Your task to perform on an android device: turn off priority inbox in the gmail app Image 0: 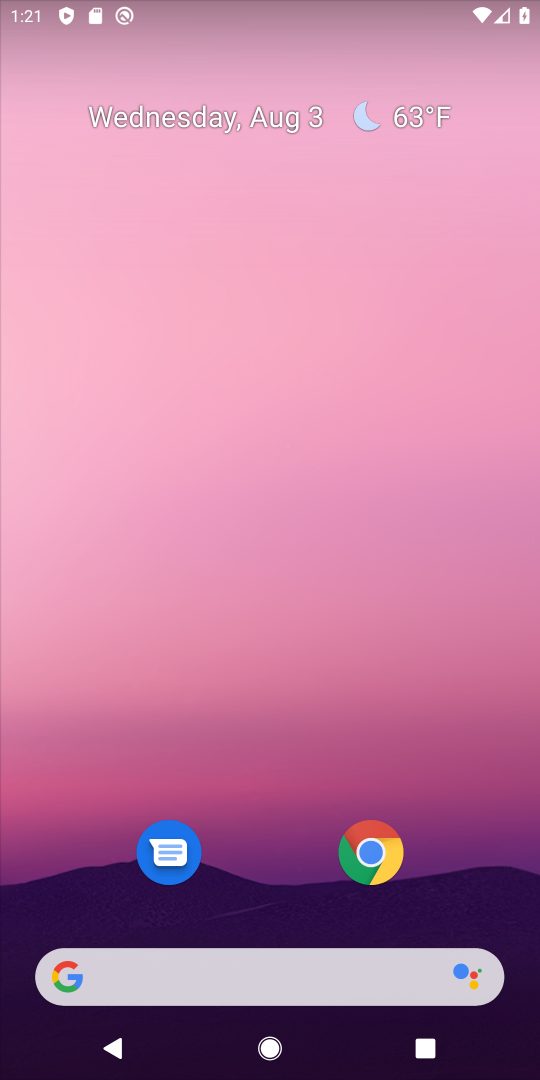
Step 0: drag from (319, 878) to (454, 327)
Your task to perform on an android device: turn off priority inbox in the gmail app Image 1: 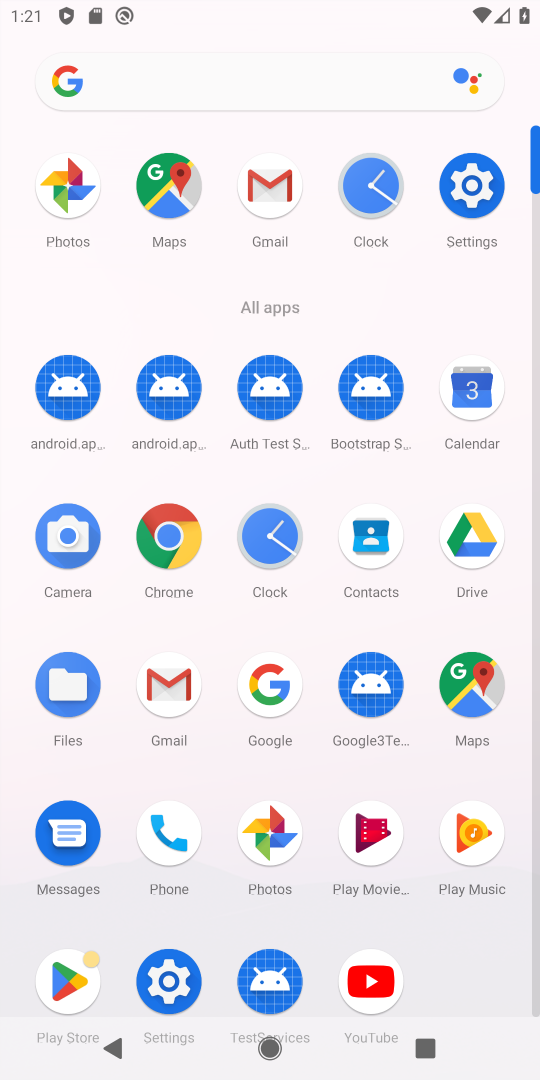
Step 1: click (265, 189)
Your task to perform on an android device: turn off priority inbox in the gmail app Image 2: 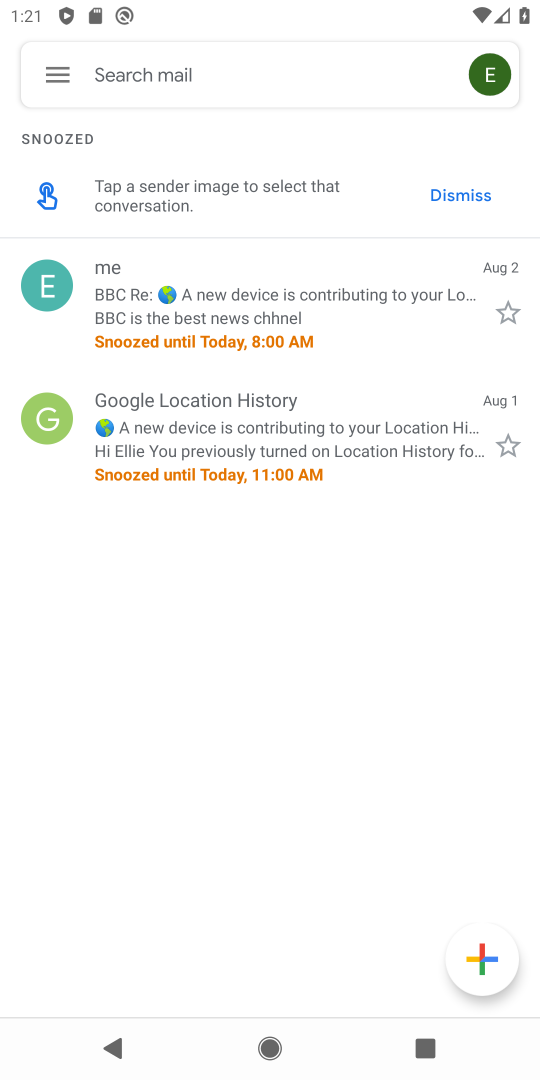
Step 2: click (46, 65)
Your task to perform on an android device: turn off priority inbox in the gmail app Image 3: 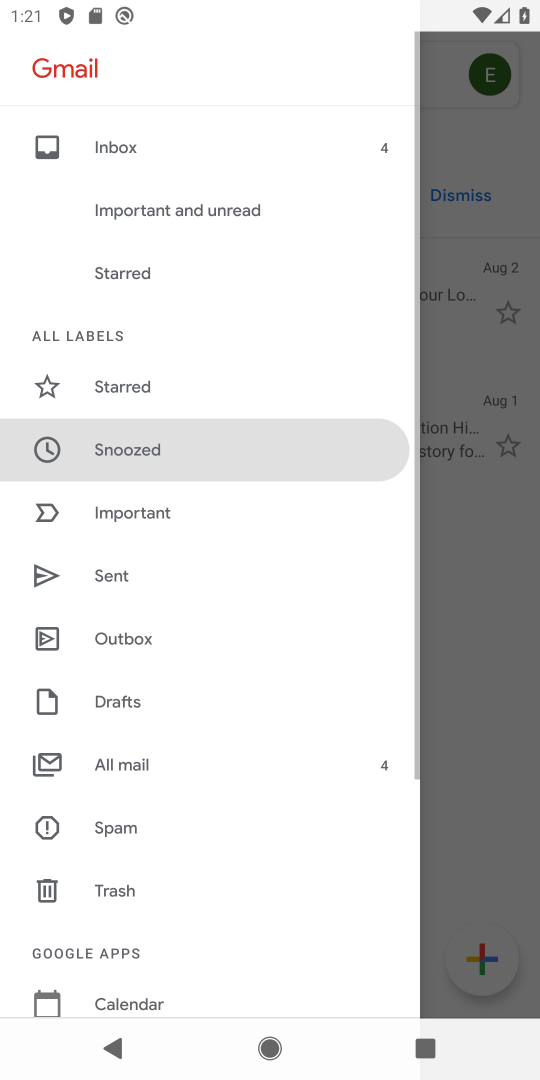
Step 3: drag from (217, 811) to (273, 55)
Your task to perform on an android device: turn off priority inbox in the gmail app Image 4: 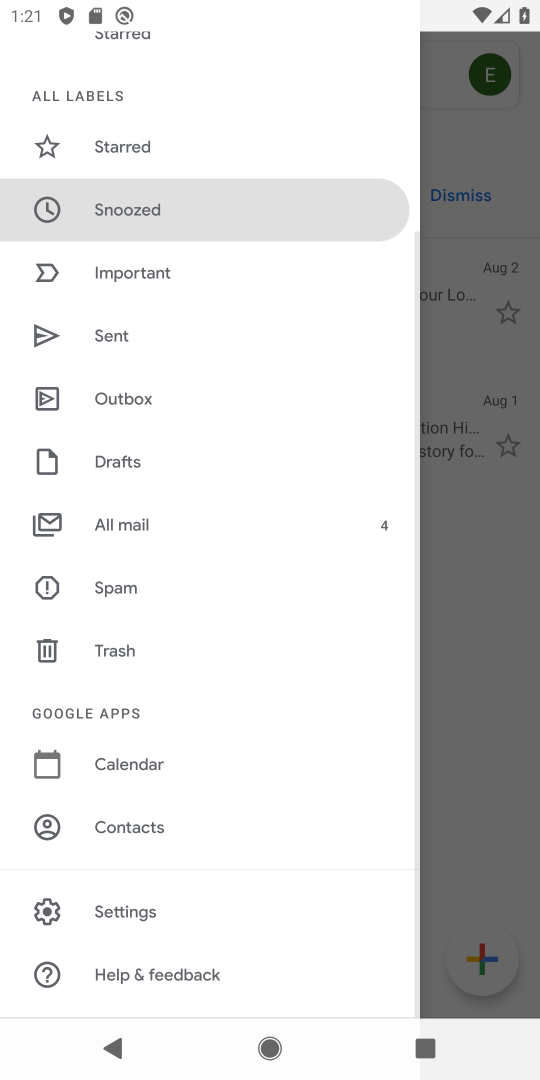
Step 4: drag from (238, 863) to (304, 95)
Your task to perform on an android device: turn off priority inbox in the gmail app Image 5: 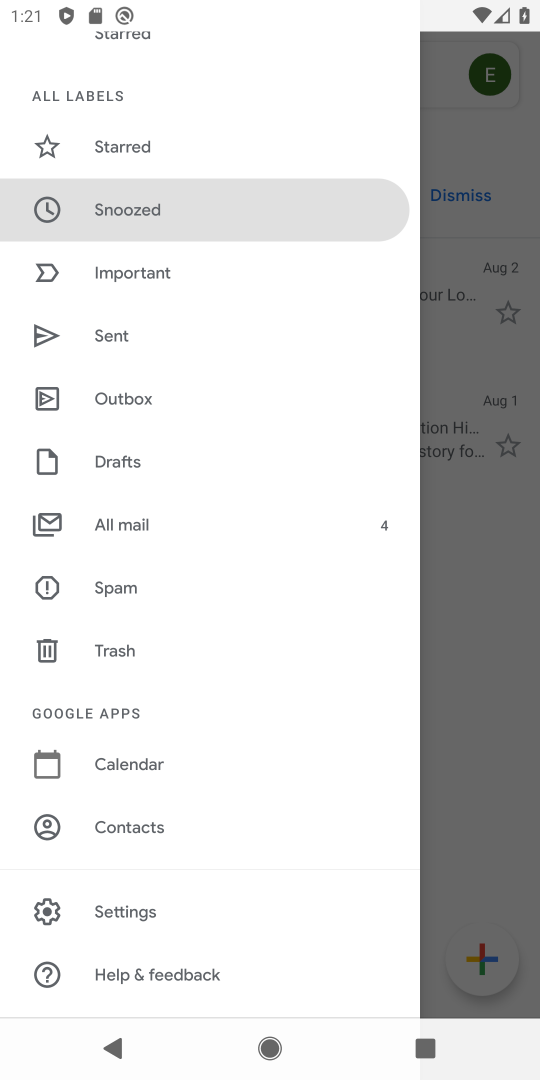
Step 5: click (128, 905)
Your task to perform on an android device: turn off priority inbox in the gmail app Image 6: 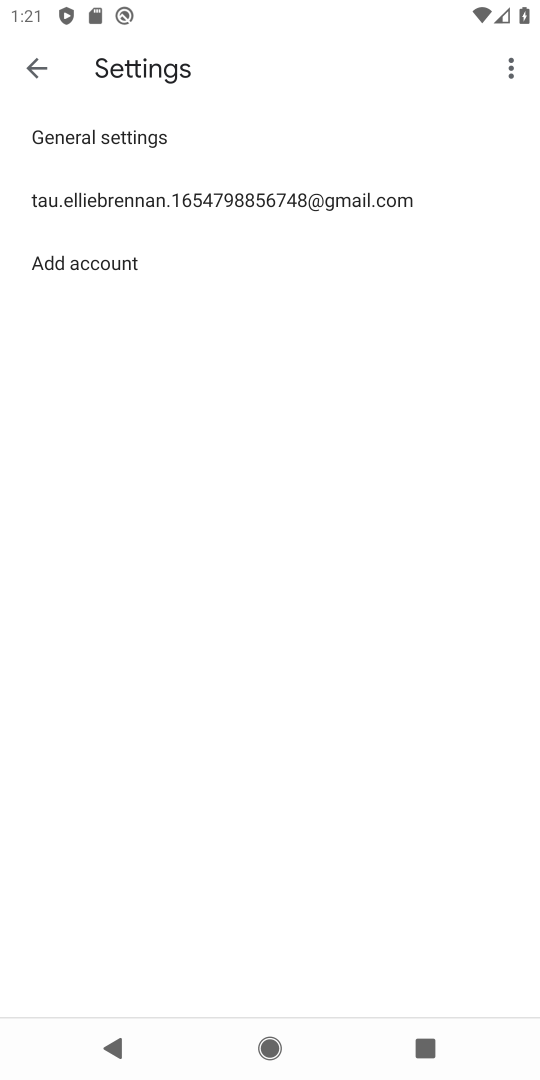
Step 6: click (237, 196)
Your task to perform on an android device: turn off priority inbox in the gmail app Image 7: 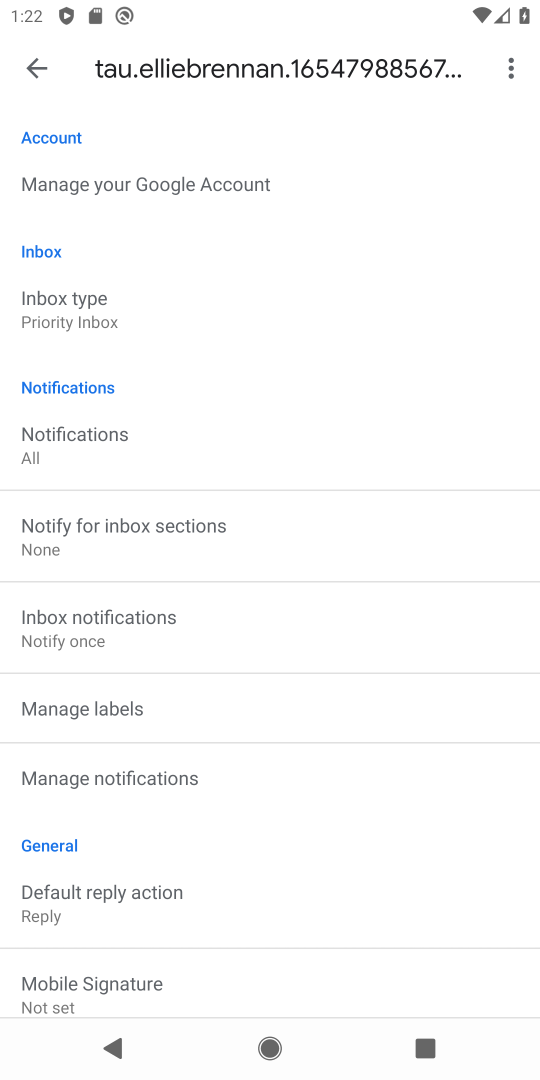
Step 7: click (65, 321)
Your task to perform on an android device: turn off priority inbox in the gmail app Image 8: 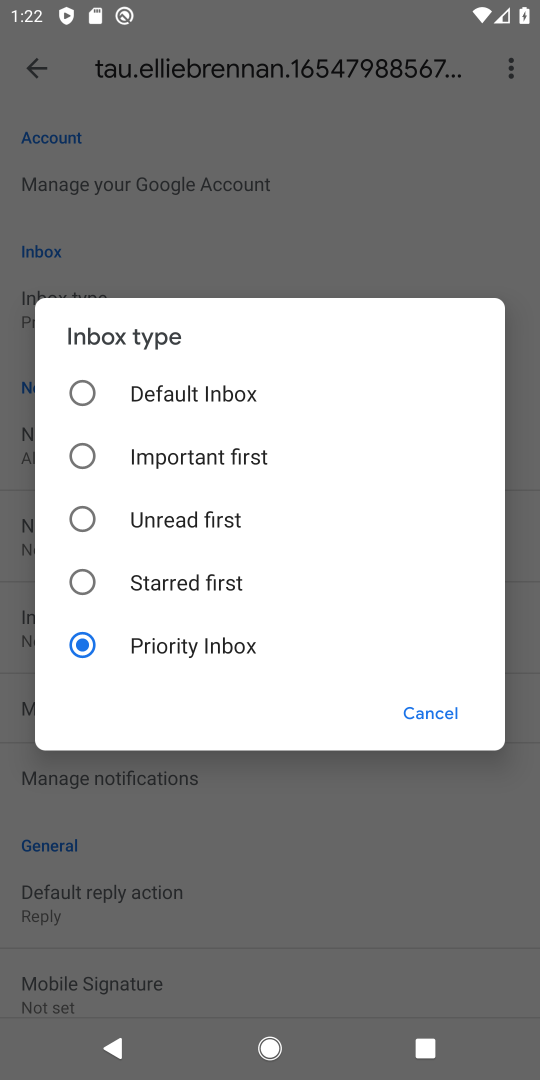
Step 8: click (78, 393)
Your task to perform on an android device: turn off priority inbox in the gmail app Image 9: 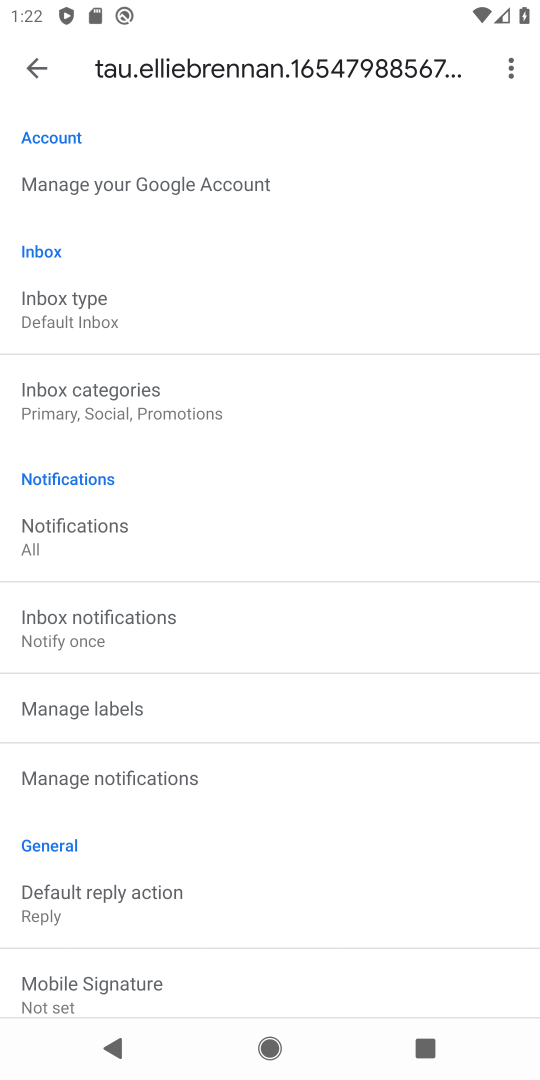
Step 9: task complete